Your task to perform on an android device: check out phone information Image 0: 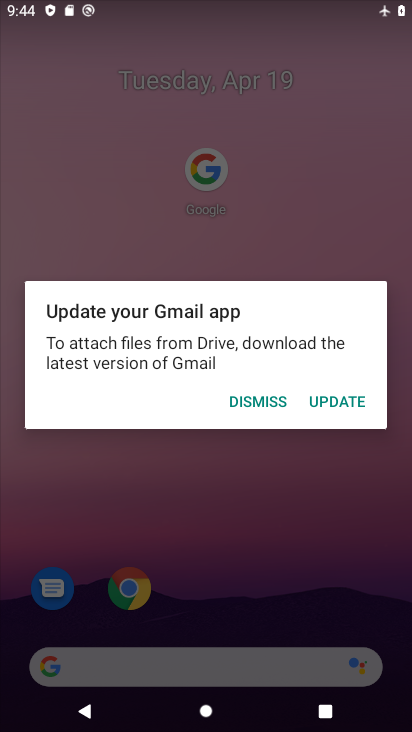
Step 0: press home button
Your task to perform on an android device: check out phone information Image 1: 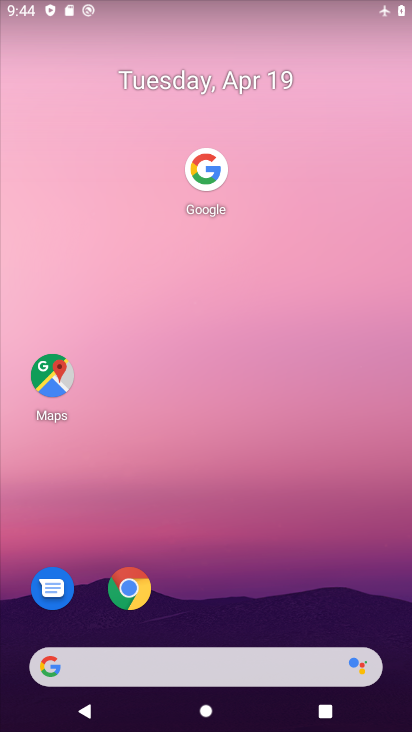
Step 1: drag from (243, 603) to (269, 128)
Your task to perform on an android device: check out phone information Image 2: 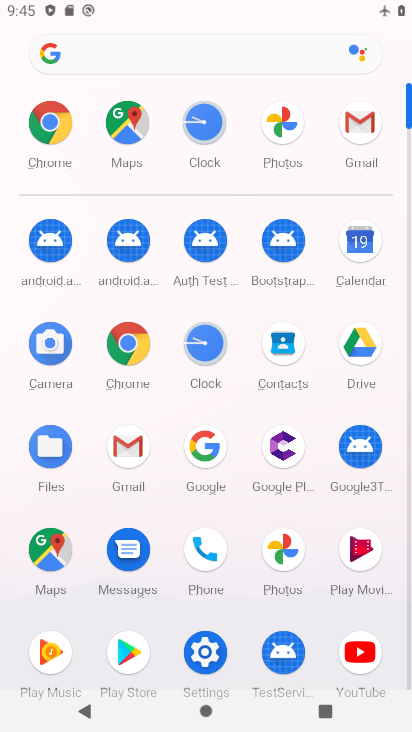
Step 2: click (198, 645)
Your task to perform on an android device: check out phone information Image 3: 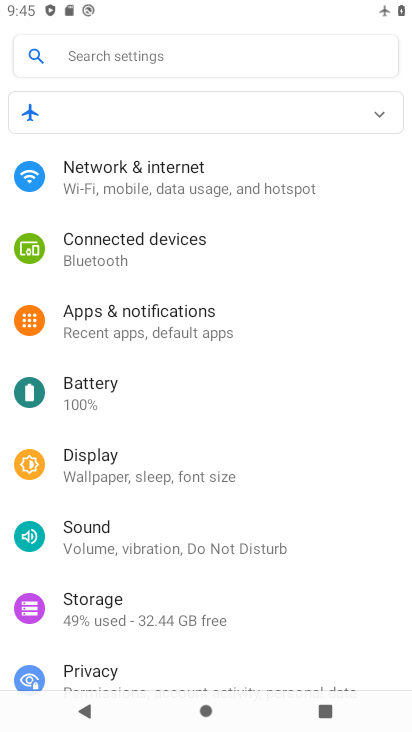
Step 3: drag from (202, 585) to (213, 78)
Your task to perform on an android device: check out phone information Image 4: 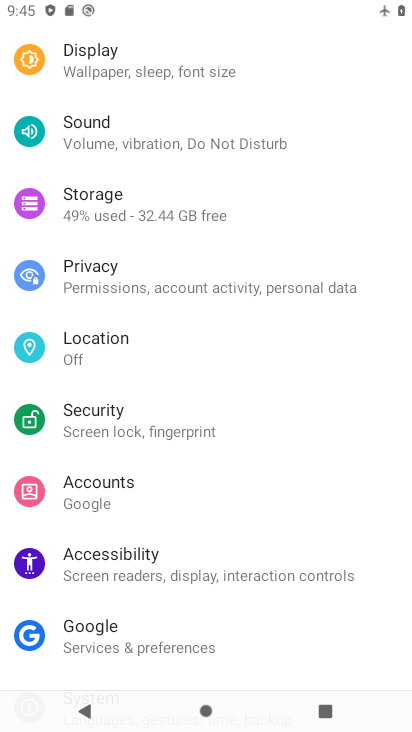
Step 4: drag from (180, 554) to (180, 225)
Your task to perform on an android device: check out phone information Image 5: 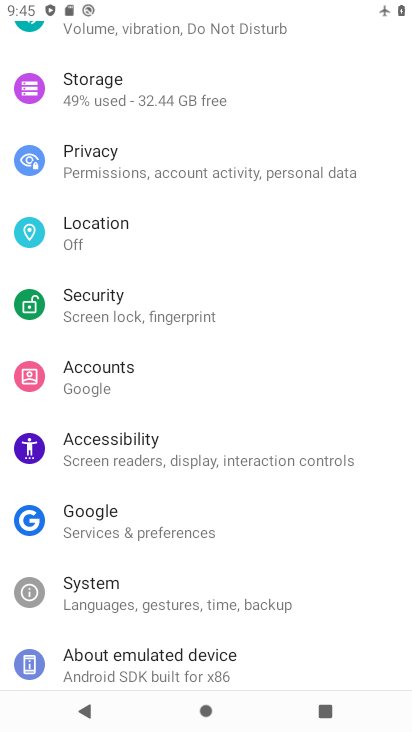
Step 5: drag from (175, 556) to (182, 5)
Your task to perform on an android device: check out phone information Image 6: 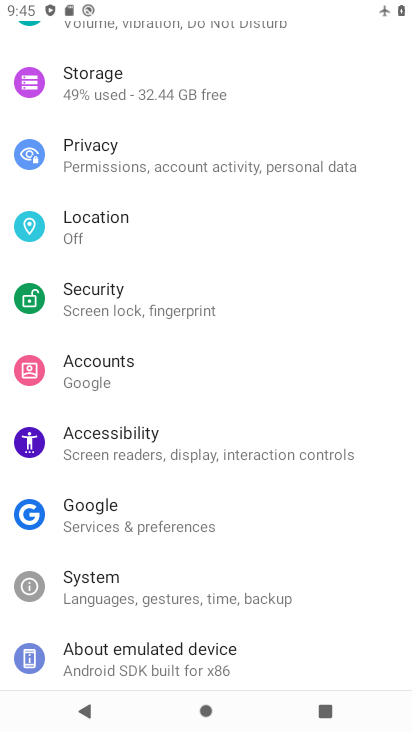
Step 6: click (140, 648)
Your task to perform on an android device: check out phone information Image 7: 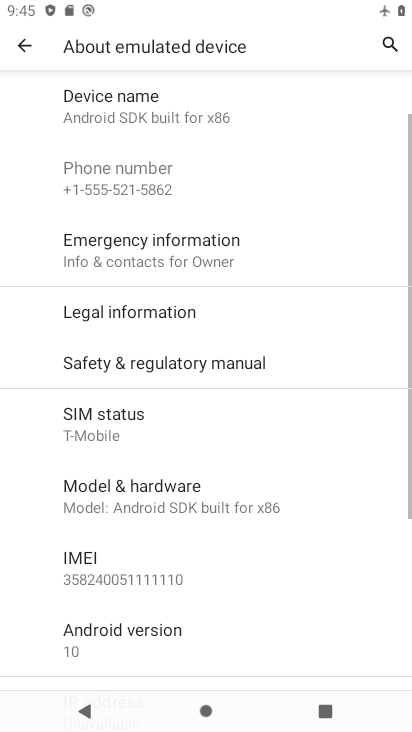
Step 7: task complete